Your task to perform on an android device: open the mobile data screen to see how much data has been used Image 0: 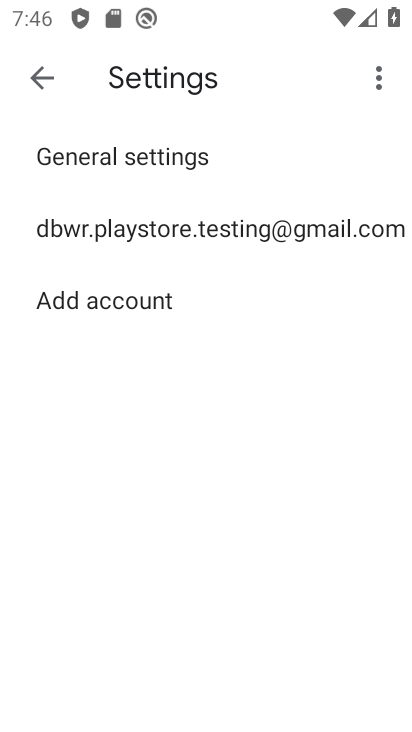
Step 0: press back button
Your task to perform on an android device: open the mobile data screen to see how much data has been used Image 1: 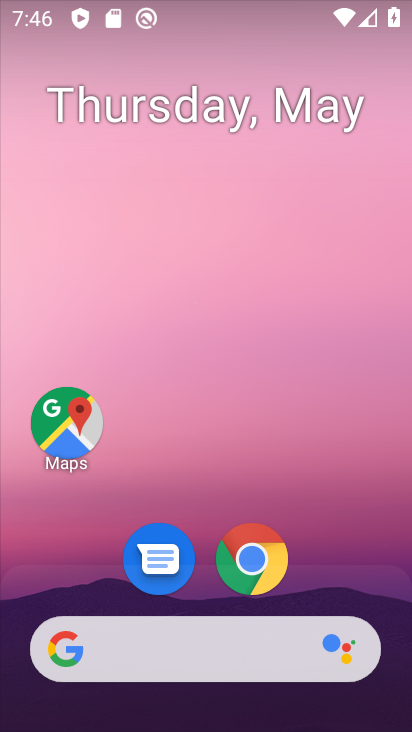
Step 1: drag from (314, 525) to (241, 116)
Your task to perform on an android device: open the mobile data screen to see how much data has been used Image 2: 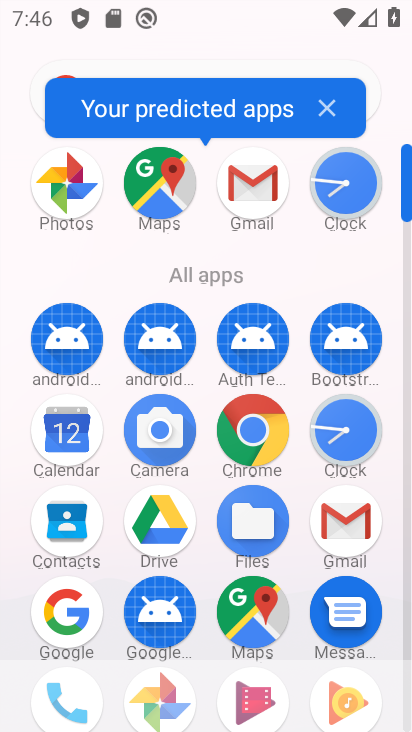
Step 2: drag from (207, 476) to (232, 138)
Your task to perform on an android device: open the mobile data screen to see how much data has been used Image 3: 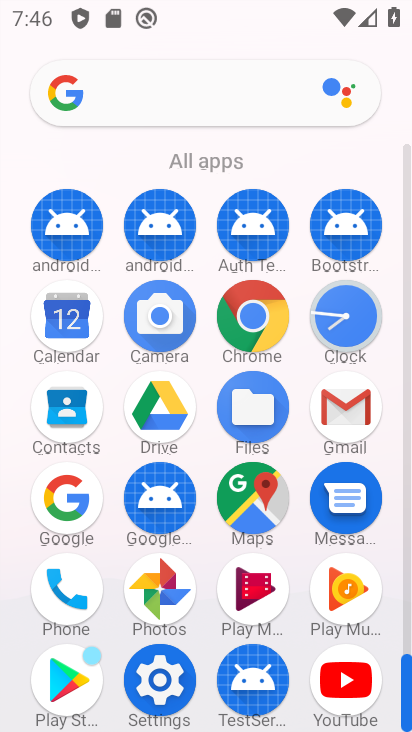
Step 3: click (158, 680)
Your task to perform on an android device: open the mobile data screen to see how much data has been used Image 4: 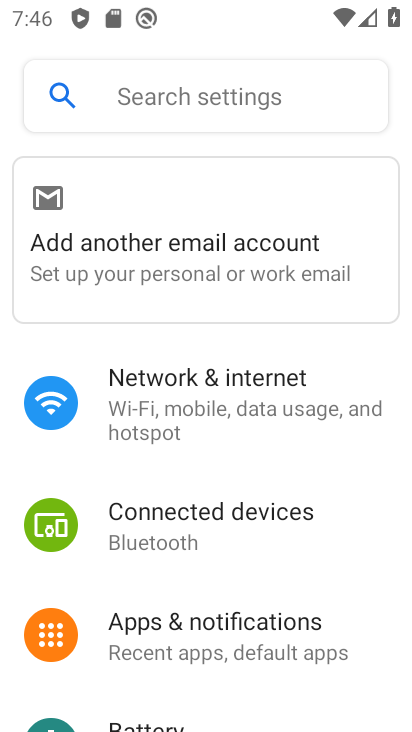
Step 4: click (184, 412)
Your task to perform on an android device: open the mobile data screen to see how much data has been used Image 5: 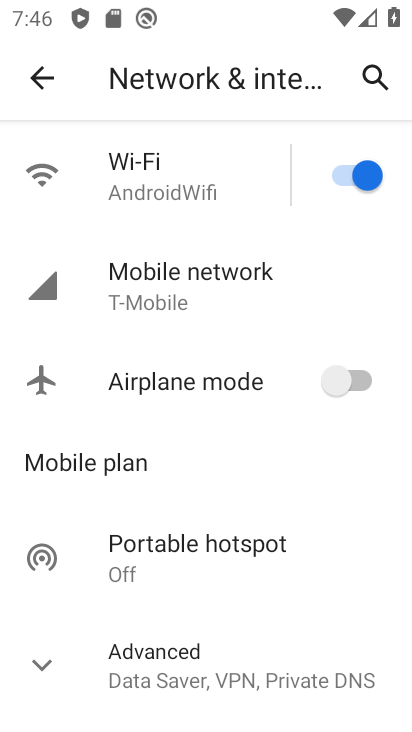
Step 5: click (190, 275)
Your task to perform on an android device: open the mobile data screen to see how much data has been used Image 6: 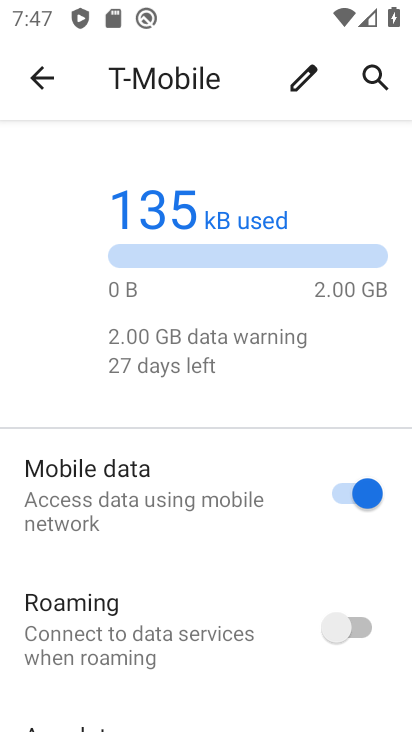
Step 6: task complete